Your task to perform on an android device: turn off sleep mode Image 0: 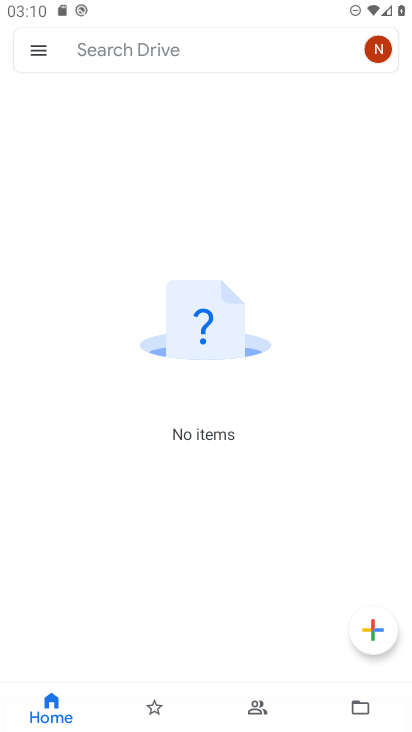
Step 0: press home button
Your task to perform on an android device: turn off sleep mode Image 1: 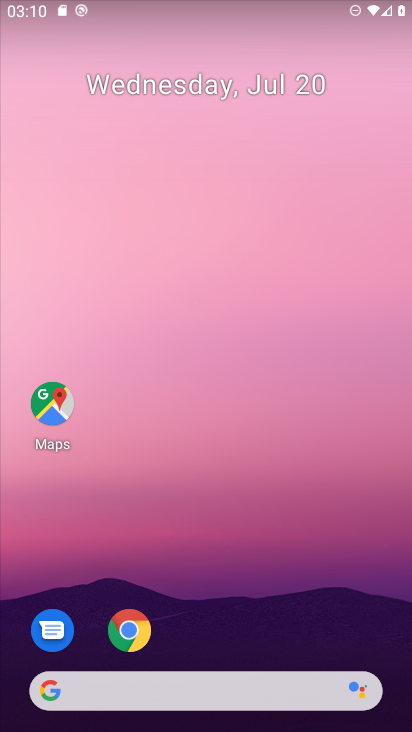
Step 1: drag from (322, 612) to (357, 125)
Your task to perform on an android device: turn off sleep mode Image 2: 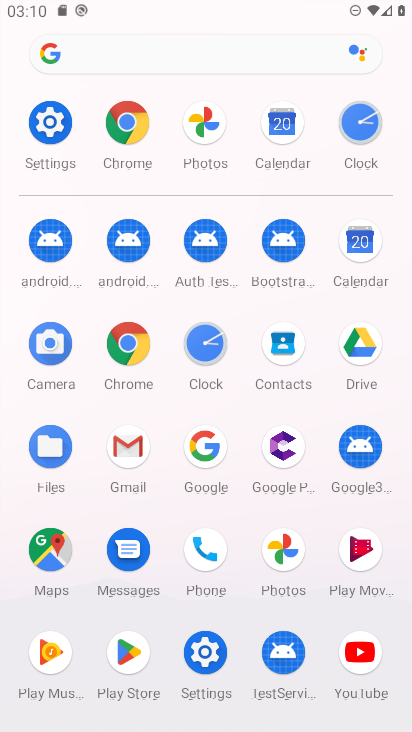
Step 2: click (207, 654)
Your task to perform on an android device: turn off sleep mode Image 3: 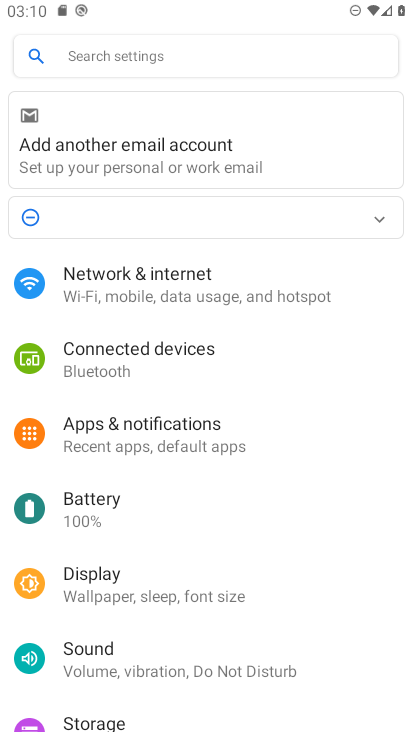
Step 3: drag from (337, 575) to (351, 464)
Your task to perform on an android device: turn off sleep mode Image 4: 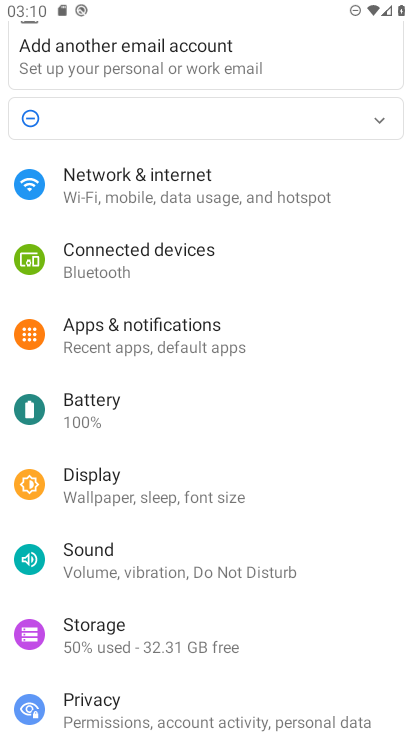
Step 4: drag from (342, 601) to (353, 499)
Your task to perform on an android device: turn off sleep mode Image 5: 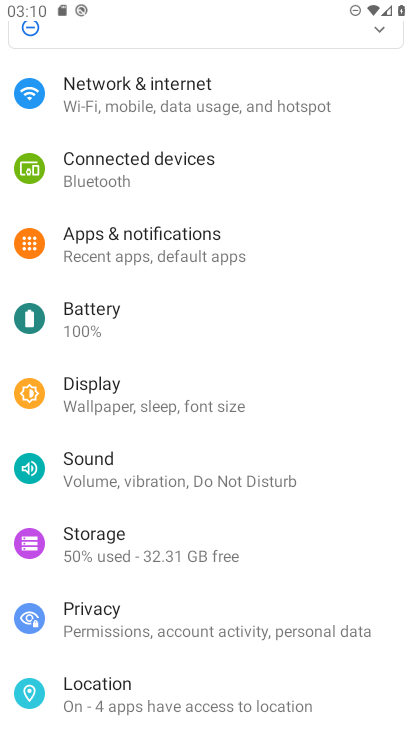
Step 5: drag from (343, 564) to (345, 480)
Your task to perform on an android device: turn off sleep mode Image 6: 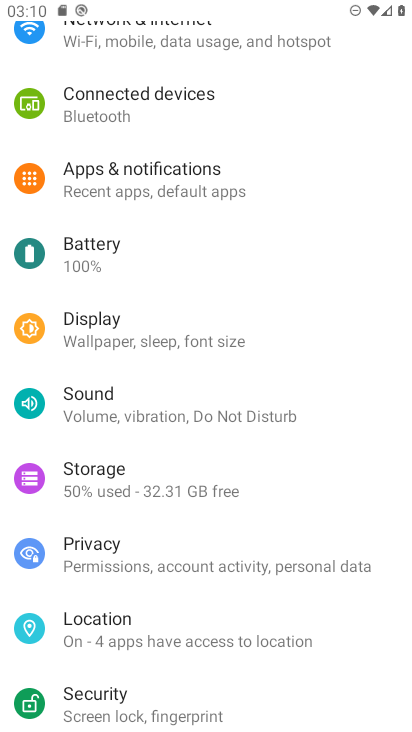
Step 6: drag from (346, 615) to (349, 511)
Your task to perform on an android device: turn off sleep mode Image 7: 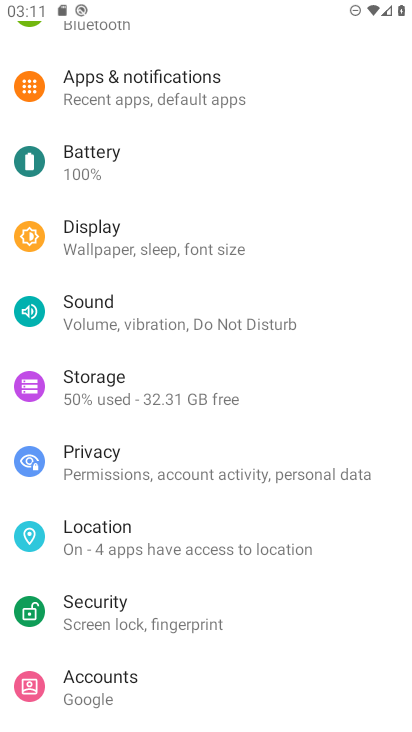
Step 7: drag from (345, 382) to (340, 441)
Your task to perform on an android device: turn off sleep mode Image 8: 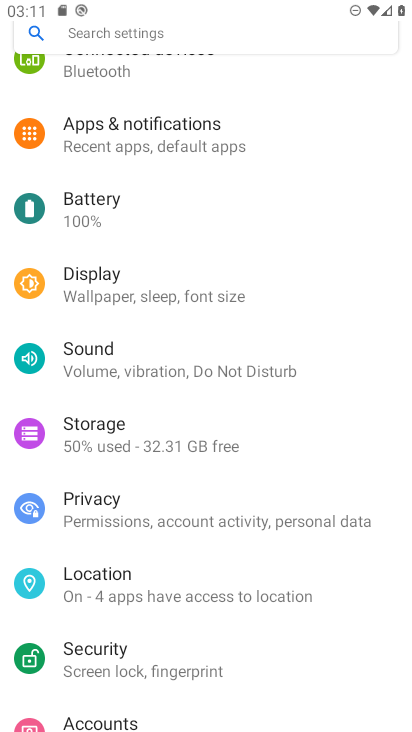
Step 8: drag from (351, 340) to (351, 434)
Your task to perform on an android device: turn off sleep mode Image 9: 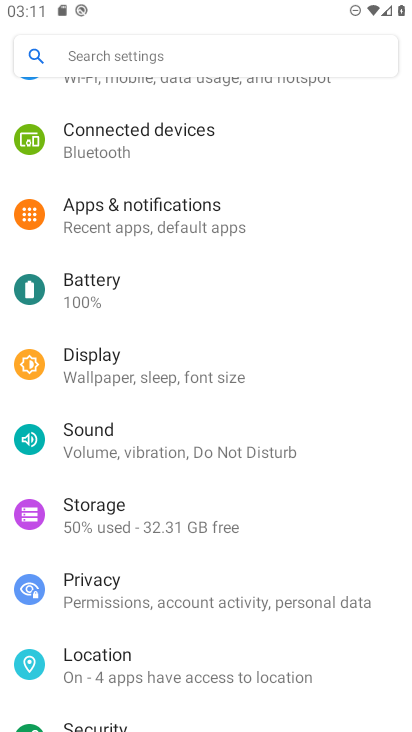
Step 9: drag from (351, 327) to (353, 491)
Your task to perform on an android device: turn off sleep mode Image 10: 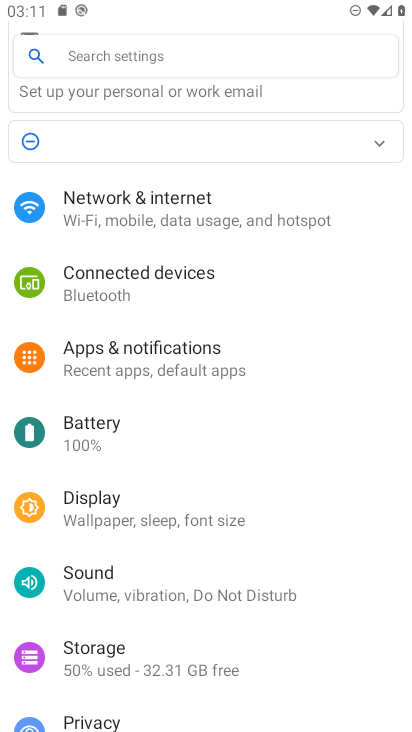
Step 10: drag from (345, 328) to (344, 441)
Your task to perform on an android device: turn off sleep mode Image 11: 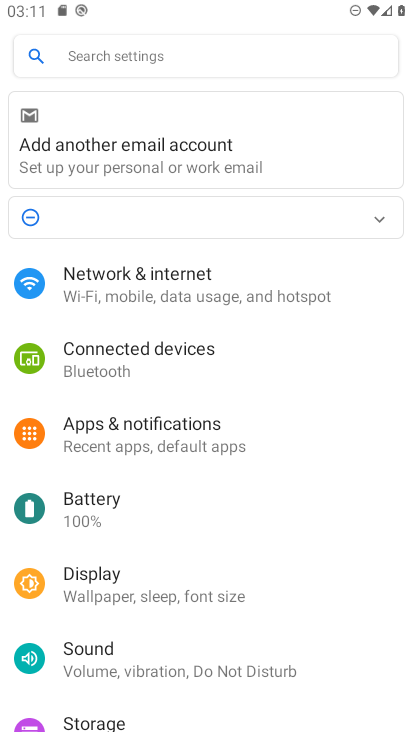
Step 11: click (282, 578)
Your task to perform on an android device: turn off sleep mode Image 12: 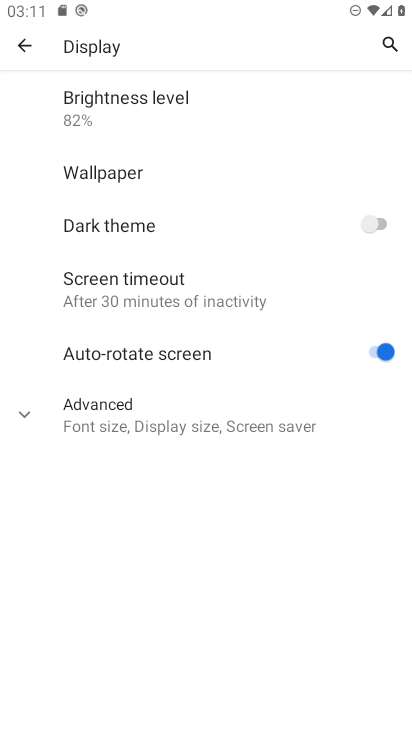
Step 12: click (324, 418)
Your task to perform on an android device: turn off sleep mode Image 13: 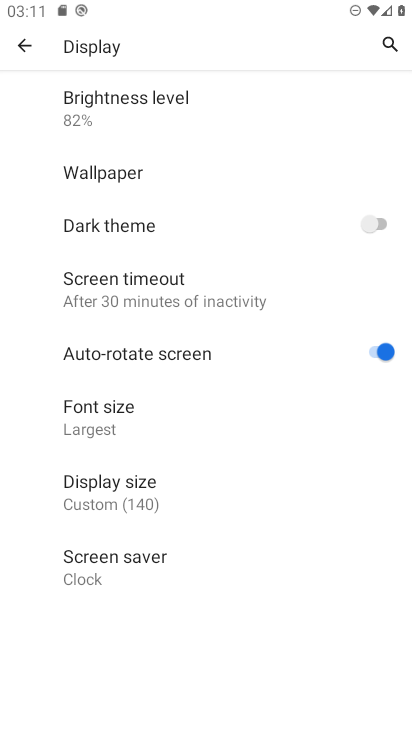
Step 13: task complete